Your task to perform on an android device: check storage Image 0: 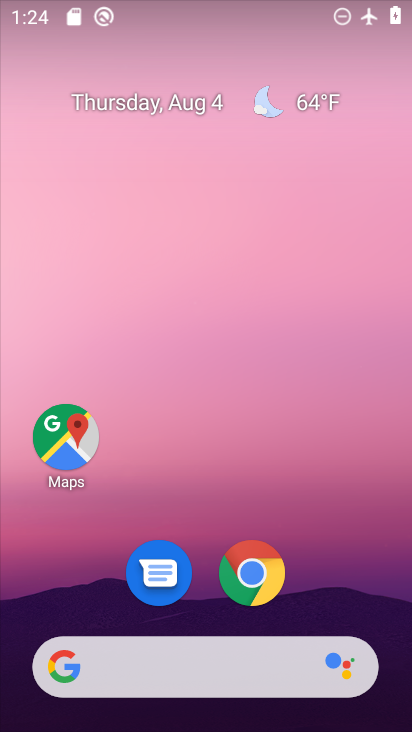
Step 0: drag from (345, 502) to (364, 7)
Your task to perform on an android device: check storage Image 1: 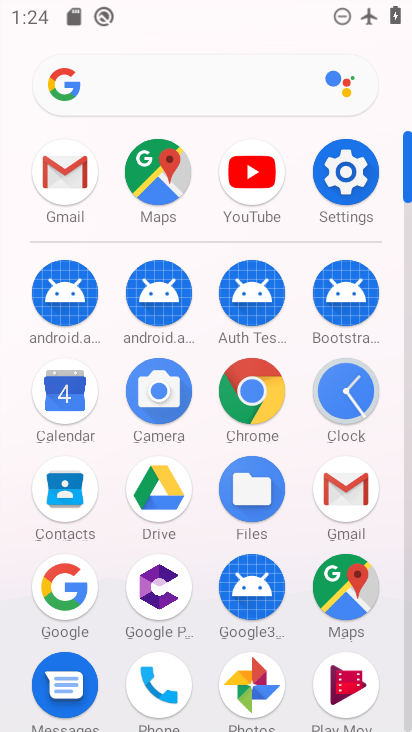
Step 1: click (347, 156)
Your task to perform on an android device: check storage Image 2: 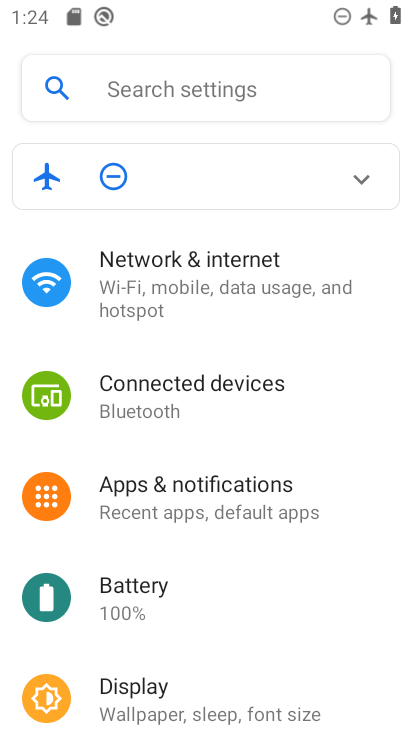
Step 2: drag from (268, 628) to (305, 202)
Your task to perform on an android device: check storage Image 3: 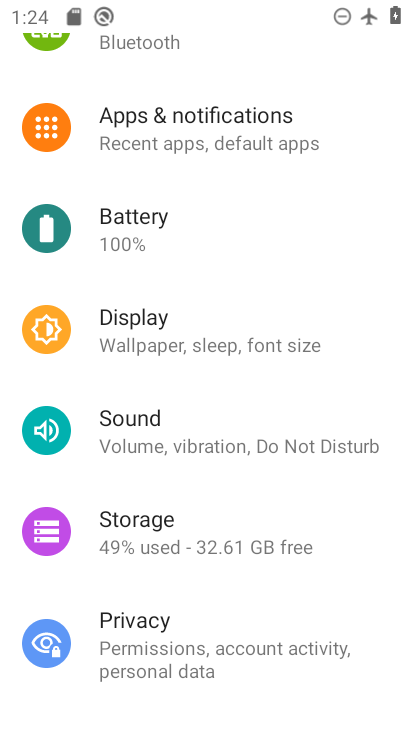
Step 3: click (117, 520)
Your task to perform on an android device: check storage Image 4: 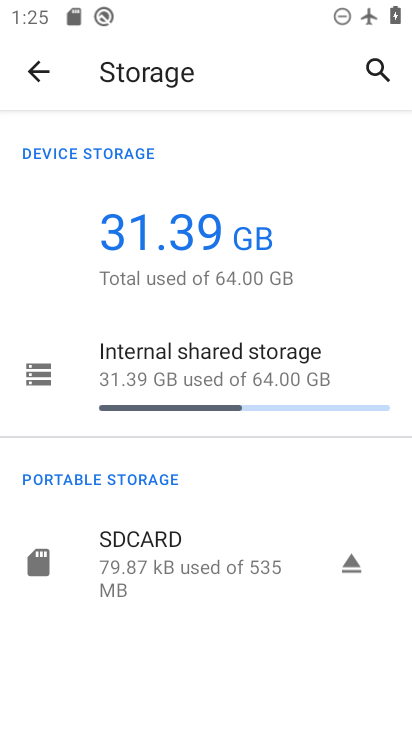
Step 4: task complete